Your task to perform on an android device: Go to Amazon Image 0: 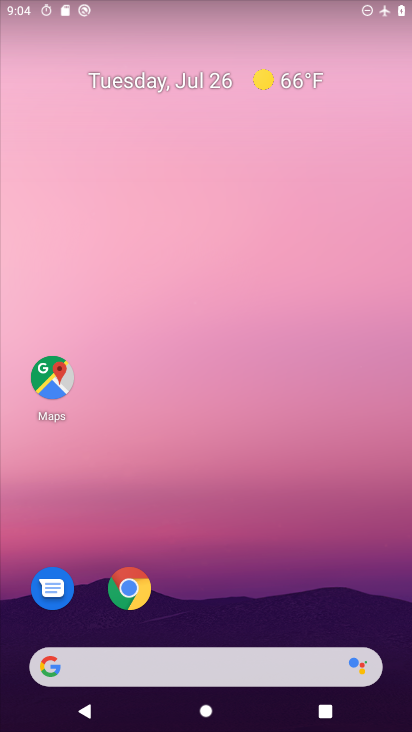
Step 0: click (125, 592)
Your task to perform on an android device: Go to Amazon Image 1: 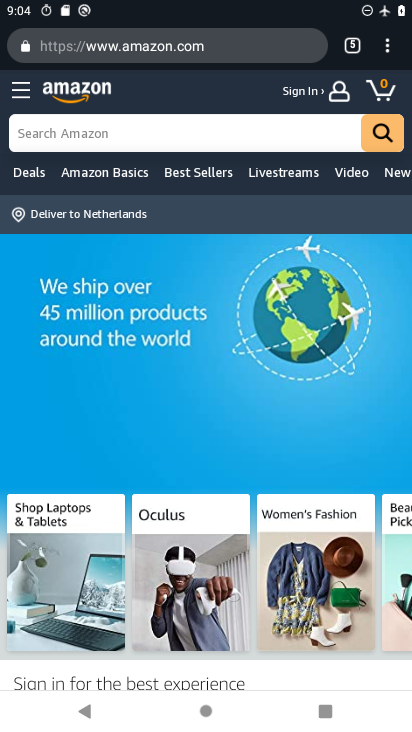
Step 1: task complete